Your task to perform on an android device: Open Google Chrome Image 0: 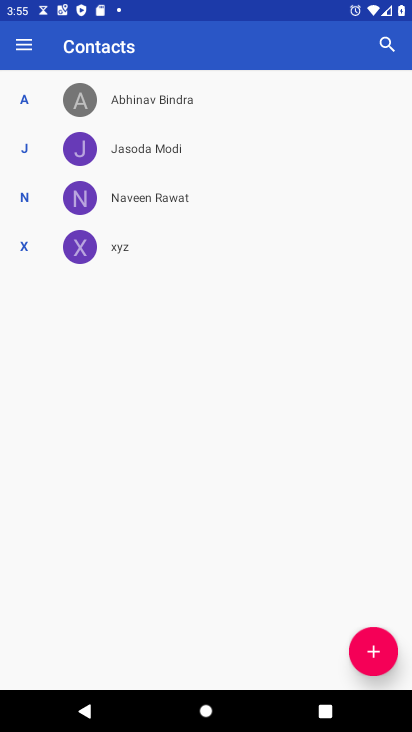
Step 0: press home button
Your task to perform on an android device: Open Google Chrome Image 1: 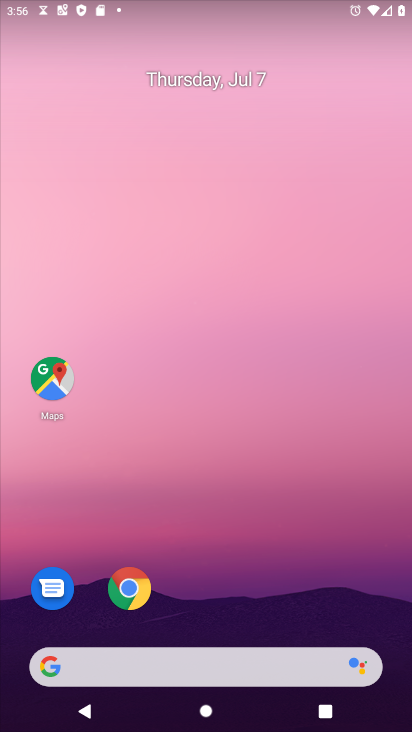
Step 1: click (130, 586)
Your task to perform on an android device: Open Google Chrome Image 2: 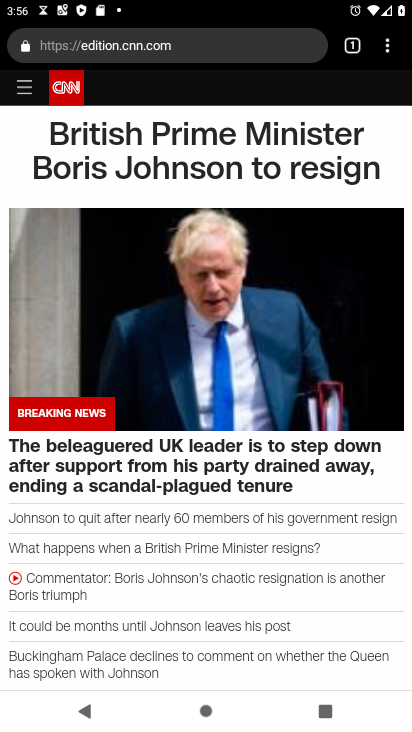
Step 2: task complete